Your task to perform on an android device: Open settings on Google Maps Image 0: 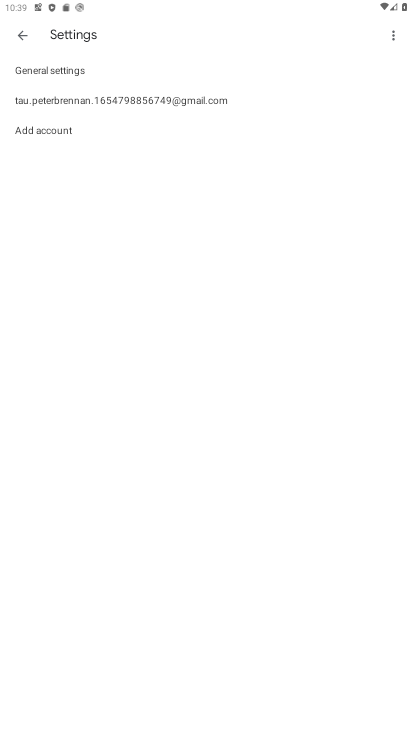
Step 0: press home button
Your task to perform on an android device: Open settings on Google Maps Image 1: 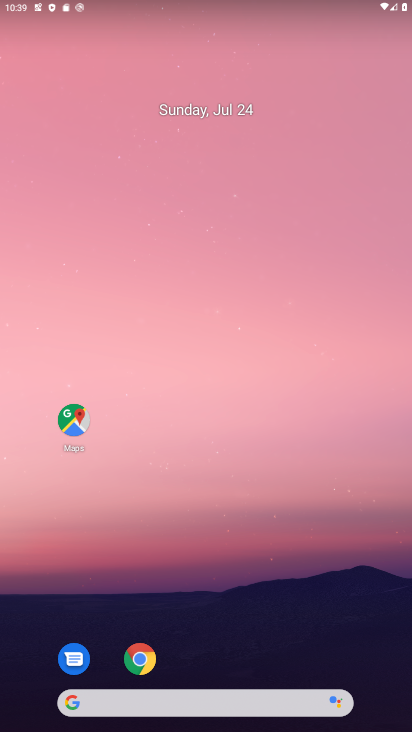
Step 1: click (70, 417)
Your task to perform on an android device: Open settings on Google Maps Image 2: 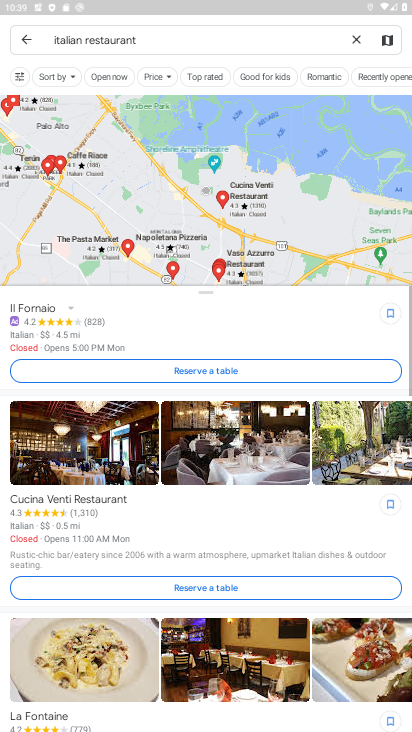
Step 2: click (22, 40)
Your task to perform on an android device: Open settings on Google Maps Image 3: 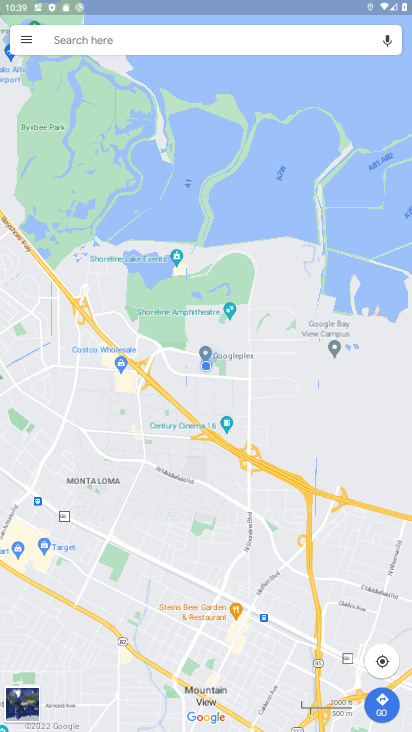
Step 3: click (26, 29)
Your task to perform on an android device: Open settings on Google Maps Image 4: 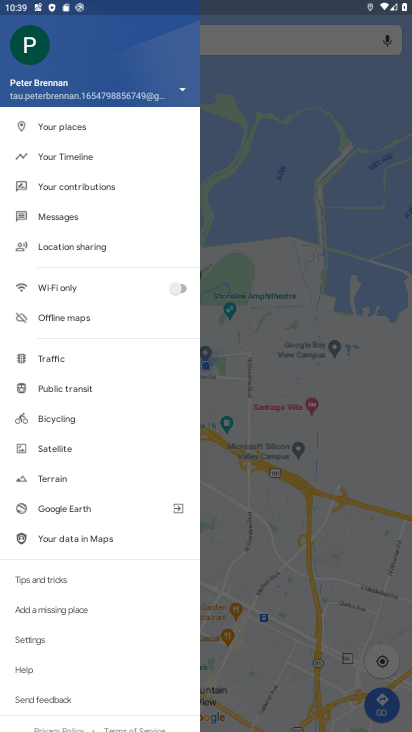
Step 4: click (31, 637)
Your task to perform on an android device: Open settings on Google Maps Image 5: 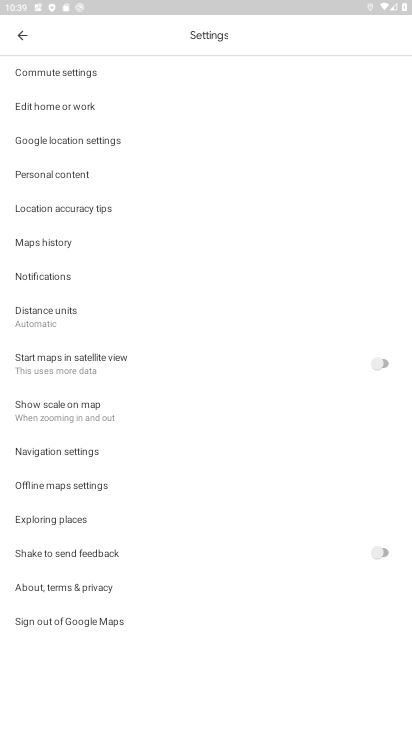
Step 5: task complete